Your task to perform on an android device: turn on the 24-hour format for clock Image 0: 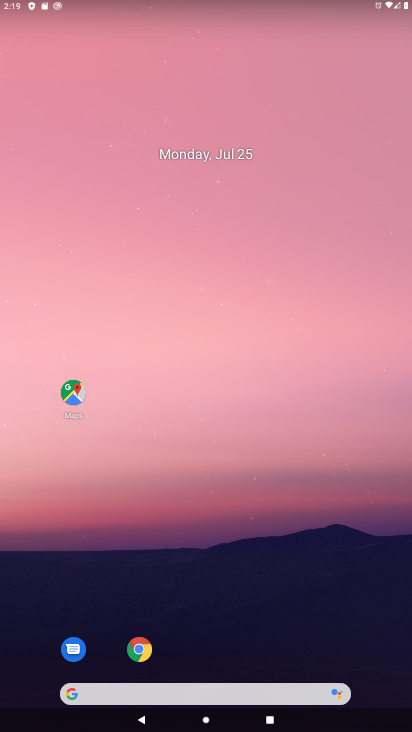
Step 0: drag from (365, 658) to (319, 141)
Your task to perform on an android device: turn on the 24-hour format for clock Image 1: 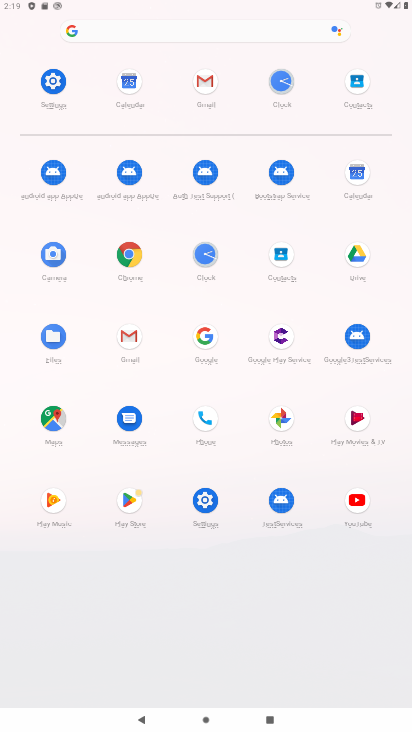
Step 1: click (203, 253)
Your task to perform on an android device: turn on the 24-hour format for clock Image 2: 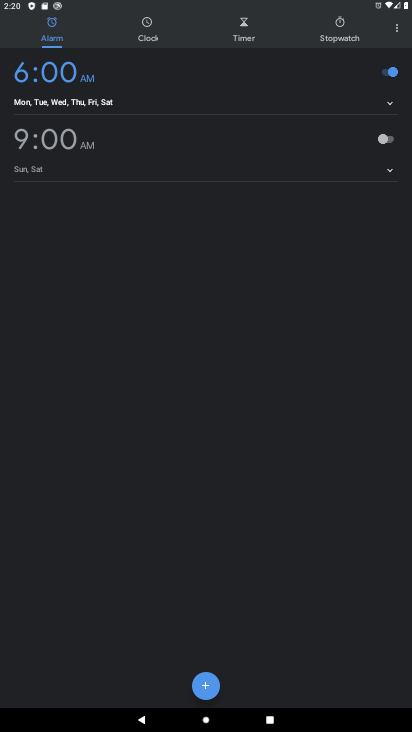
Step 2: click (396, 32)
Your task to perform on an android device: turn on the 24-hour format for clock Image 3: 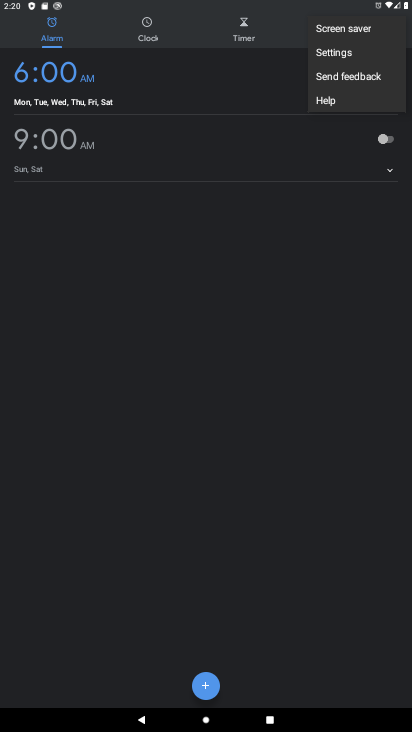
Step 3: click (332, 56)
Your task to perform on an android device: turn on the 24-hour format for clock Image 4: 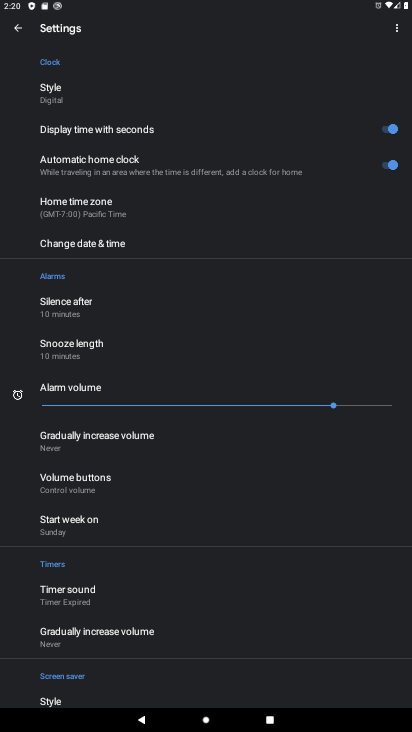
Step 4: click (112, 238)
Your task to perform on an android device: turn on the 24-hour format for clock Image 5: 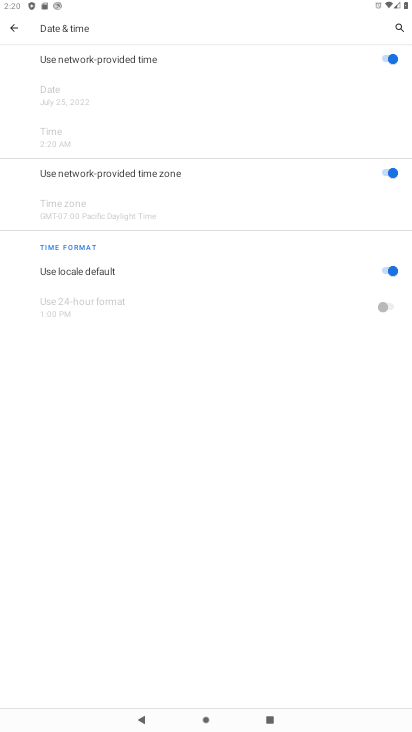
Step 5: click (380, 265)
Your task to perform on an android device: turn on the 24-hour format for clock Image 6: 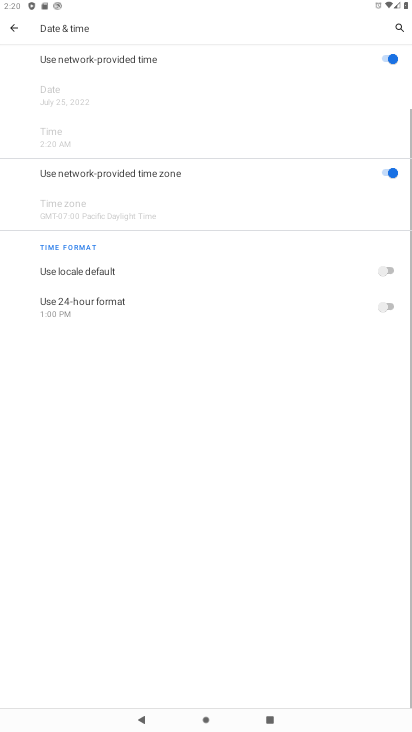
Step 6: click (394, 306)
Your task to perform on an android device: turn on the 24-hour format for clock Image 7: 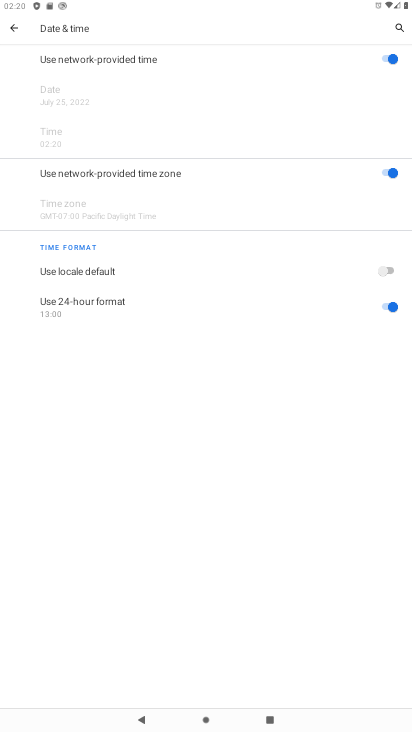
Step 7: task complete